Your task to perform on an android device: install app "Upside-Cash back on gas & food" Image 0: 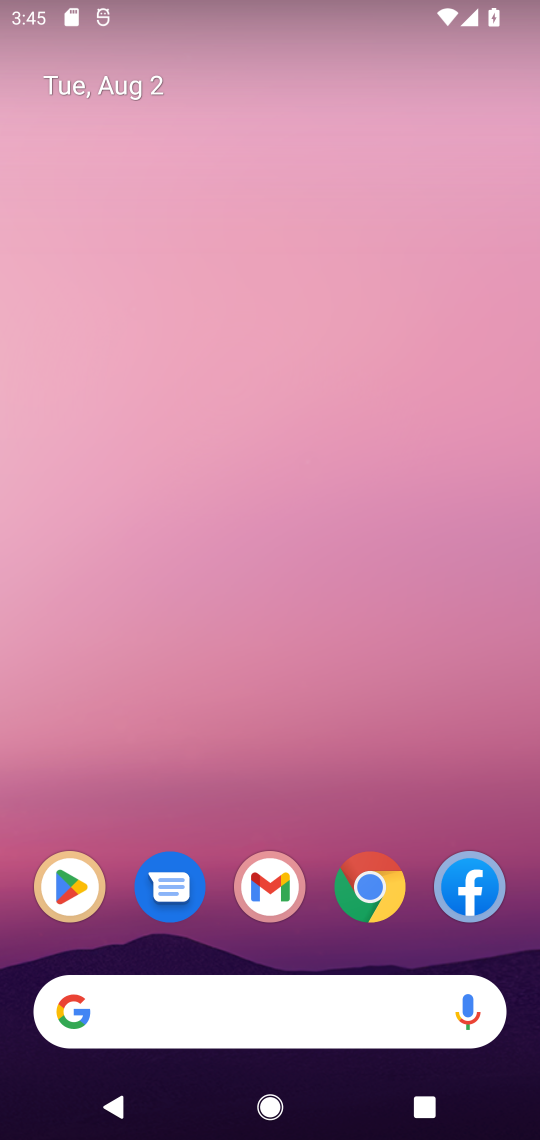
Step 0: click (78, 895)
Your task to perform on an android device: install app "Upside-Cash back on gas & food" Image 1: 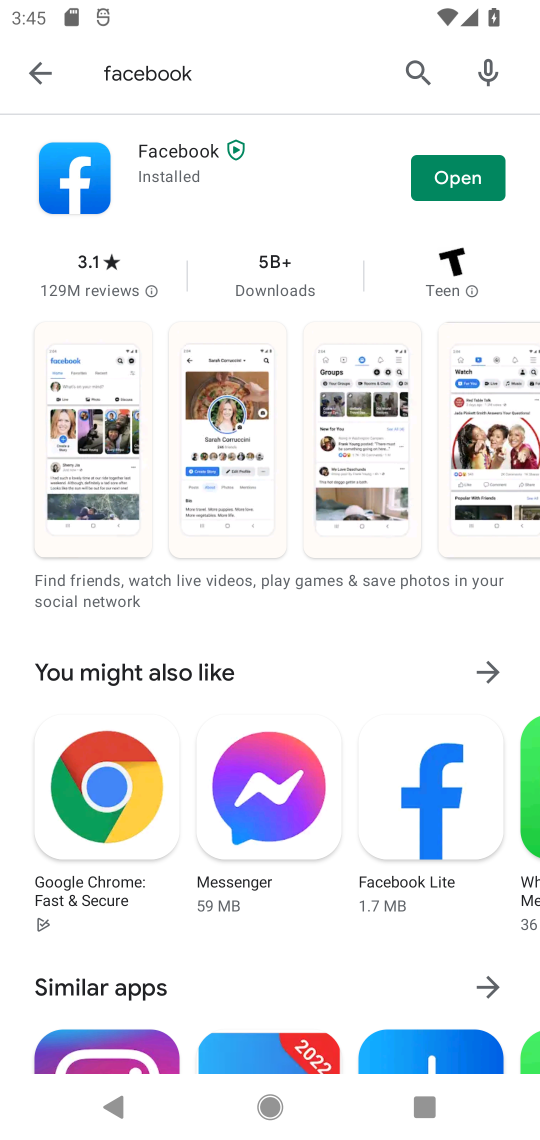
Step 1: click (53, 68)
Your task to perform on an android device: install app "Upside-Cash back on gas & food" Image 2: 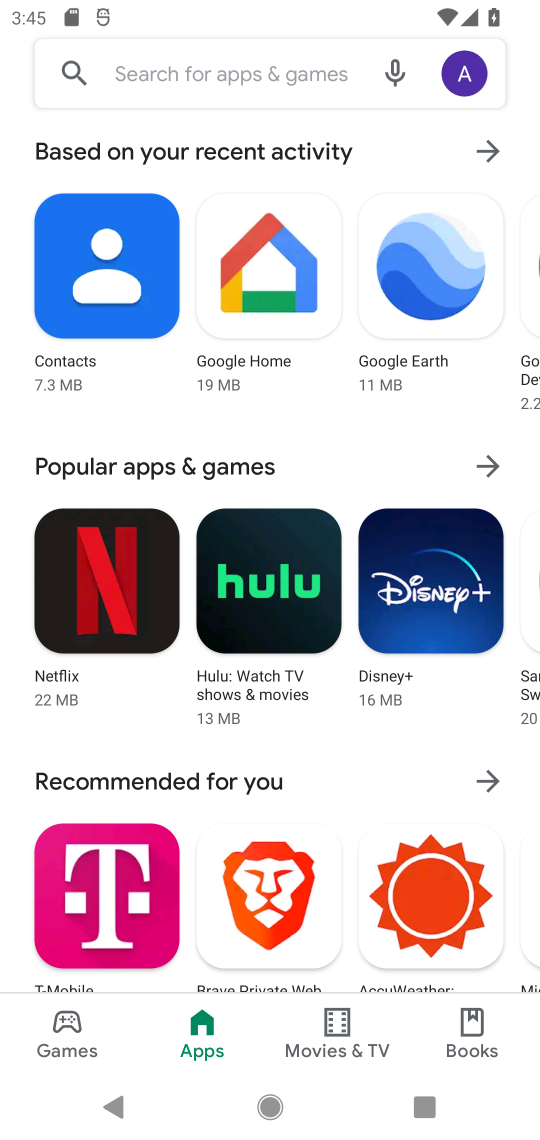
Step 2: click (134, 70)
Your task to perform on an android device: install app "Upside-Cash back on gas & food" Image 3: 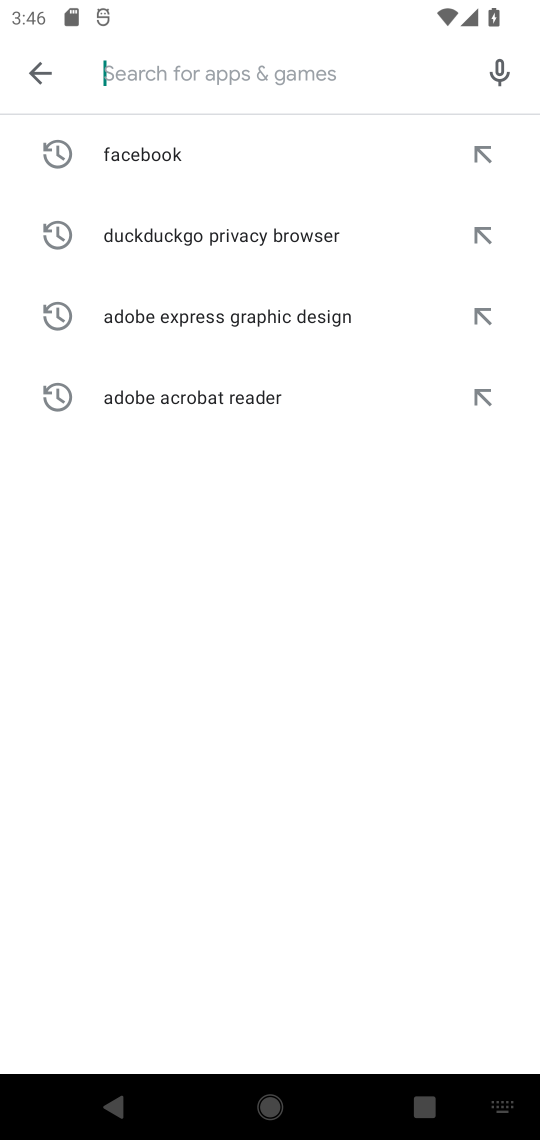
Step 3: type "Upside-Cash back on gas & food"
Your task to perform on an android device: install app "Upside-Cash back on gas & food" Image 4: 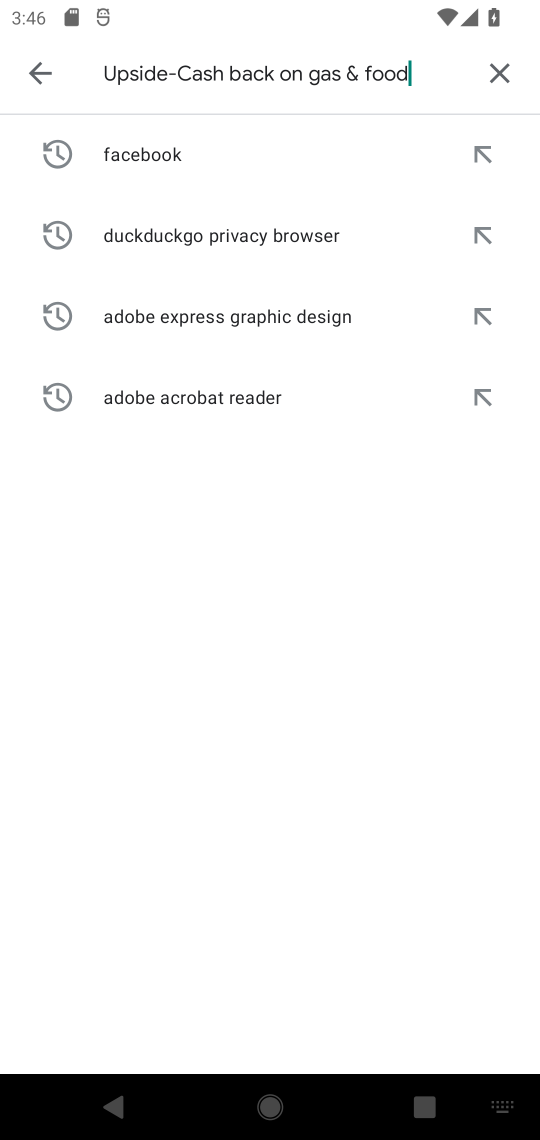
Step 4: type ""
Your task to perform on an android device: install app "Upside-Cash back on gas & food" Image 5: 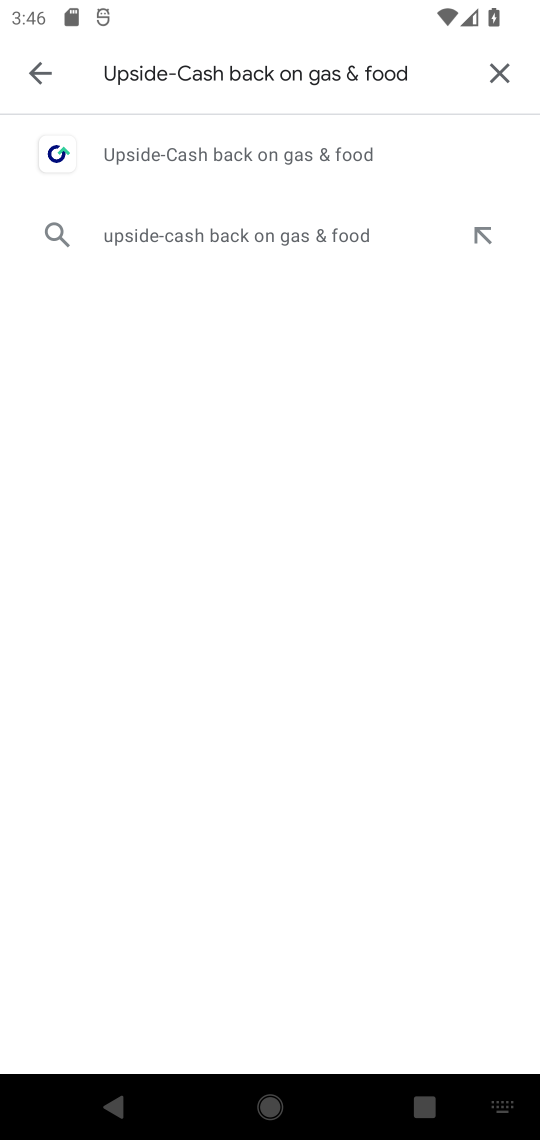
Step 5: click (267, 165)
Your task to perform on an android device: install app "Upside-Cash back on gas & food" Image 6: 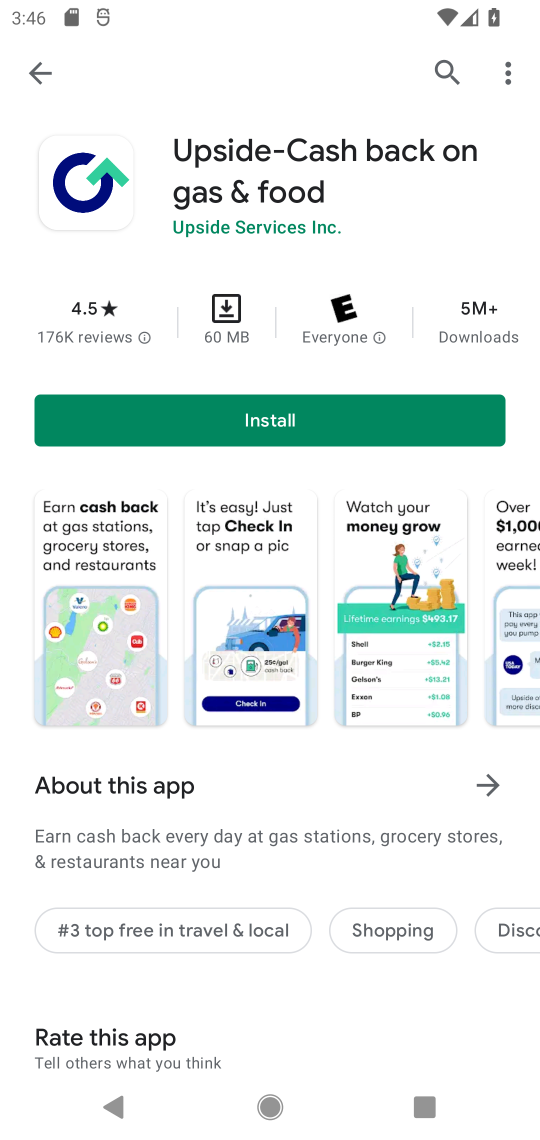
Step 6: click (312, 429)
Your task to perform on an android device: install app "Upside-Cash back on gas & food" Image 7: 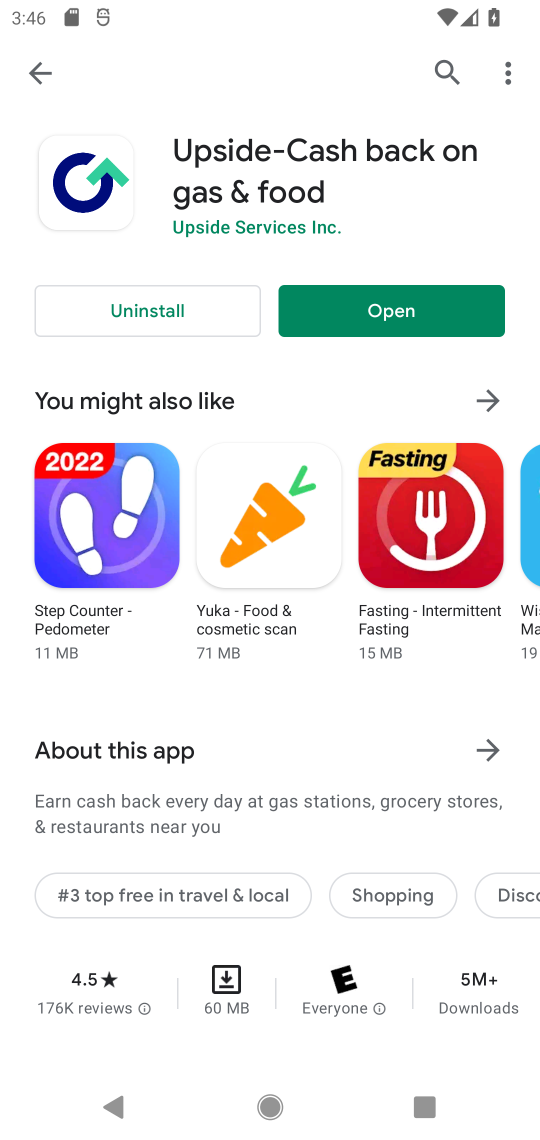
Step 7: task complete